Your task to perform on an android device: turn pop-ups off in chrome Image 0: 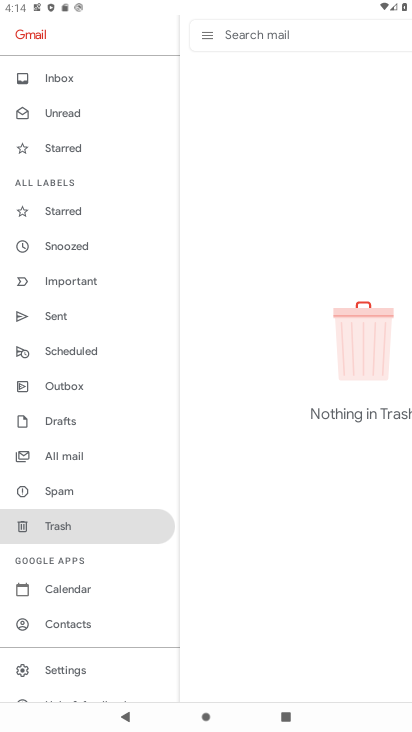
Step 0: press home button
Your task to perform on an android device: turn pop-ups off in chrome Image 1: 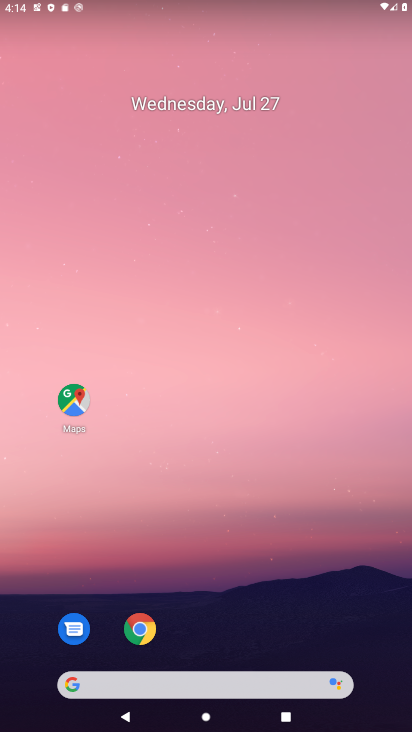
Step 1: click (152, 630)
Your task to perform on an android device: turn pop-ups off in chrome Image 2: 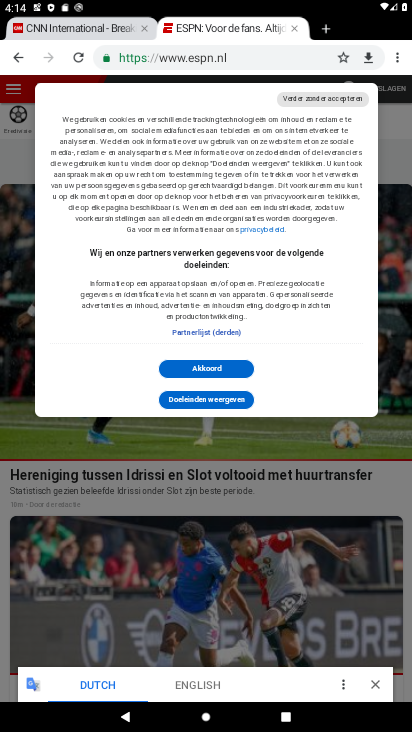
Step 2: click (398, 62)
Your task to perform on an android device: turn pop-ups off in chrome Image 3: 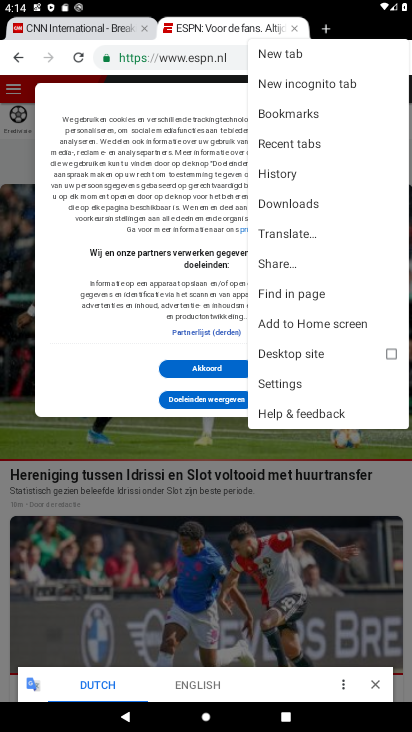
Step 3: click (273, 373)
Your task to perform on an android device: turn pop-ups off in chrome Image 4: 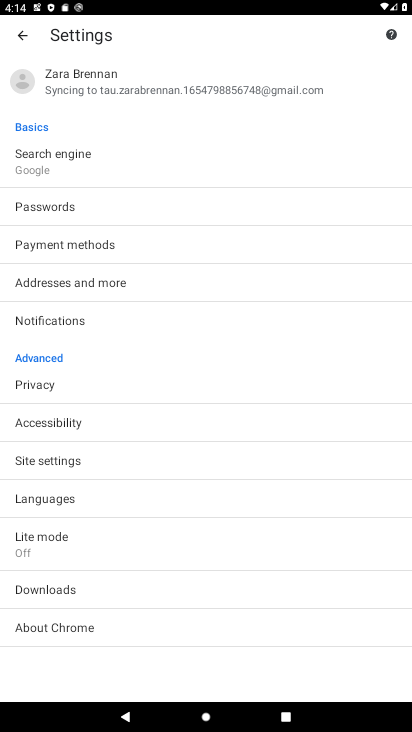
Step 4: click (90, 471)
Your task to perform on an android device: turn pop-ups off in chrome Image 5: 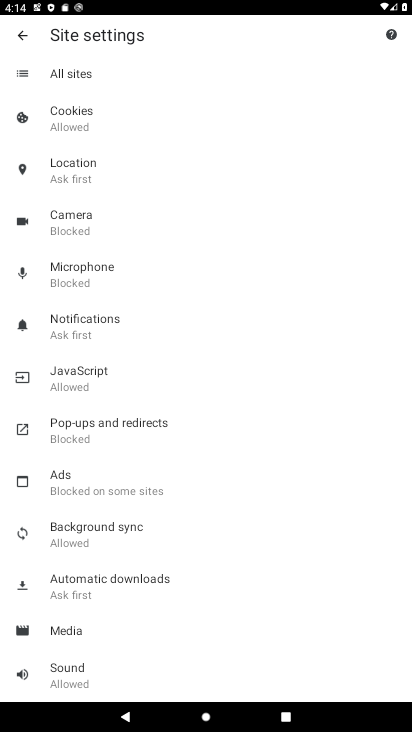
Step 5: click (68, 441)
Your task to perform on an android device: turn pop-ups off in chrome Image 6: 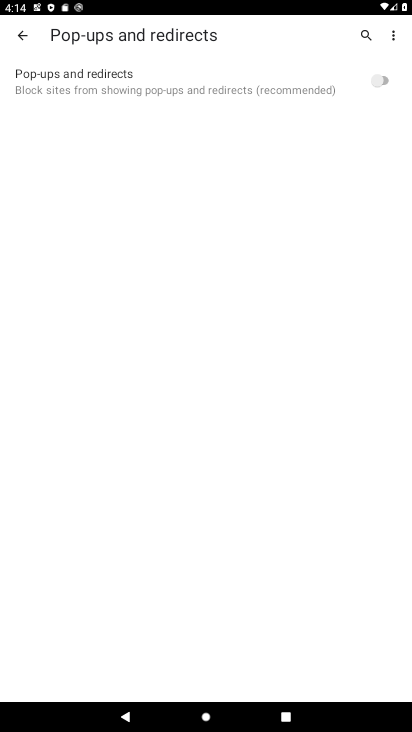
Step 6: task complete